Your task to perform on an android device: turn off picture-in-picture Image 0: 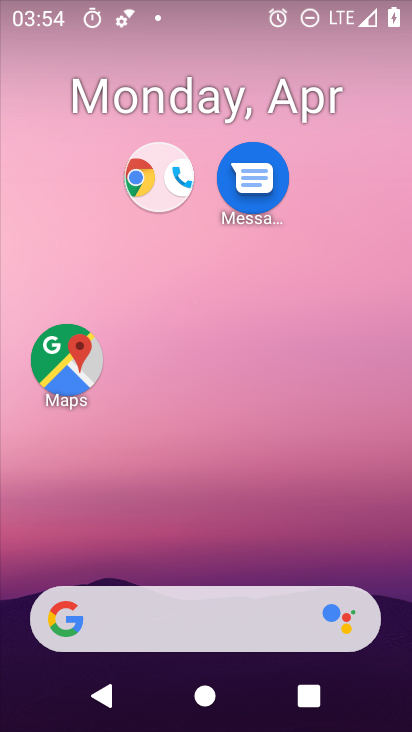
Step 0: drag from (275, 288) to (309, 2)
Your task to perform on an android device: turn off picture-in-picture Image 1: 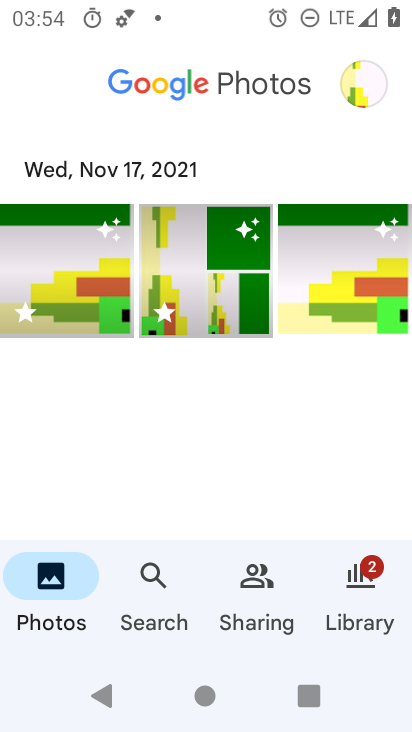
Step 1: press home button
Your task to perform on an android device: turn off picture-in-picture Image 2: 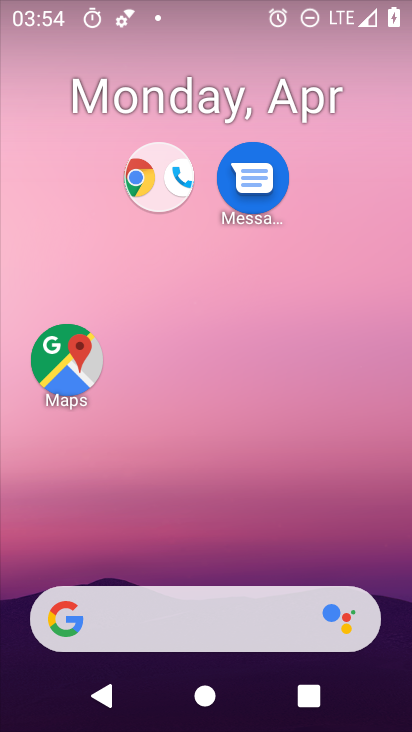
Step 2: drag from (299, 586) to (348, 4)
Your task to perform on an android device: turn off picture-in-picture Image 3: 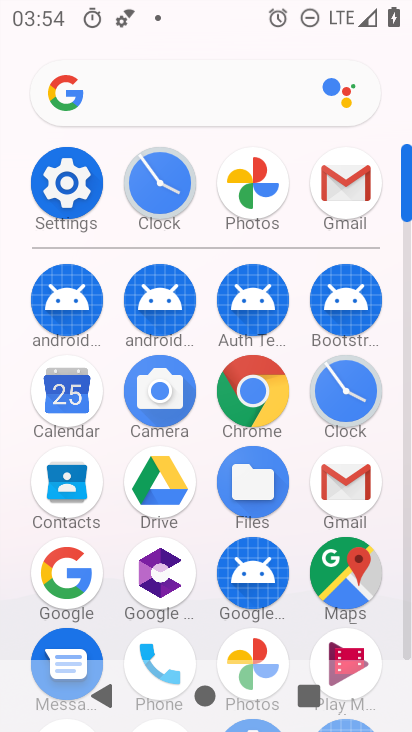
Step 3: drag from (298, 618) to (298, 175)
Your task to perform on an android device: turn off picture-in-picture Image 4: 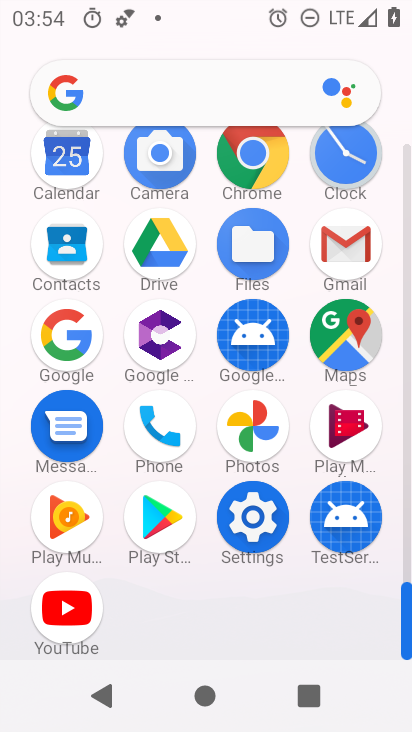
Step 4: click (271, 422)
Your task to perform on an android device: turn off picture-in-picture Image 5: 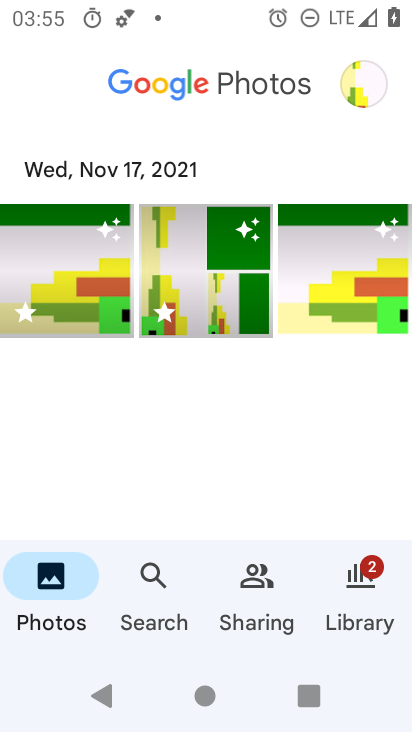
Step 5: press home button
Your task to perform on an android device: turn off picture-in-picture Image 6: 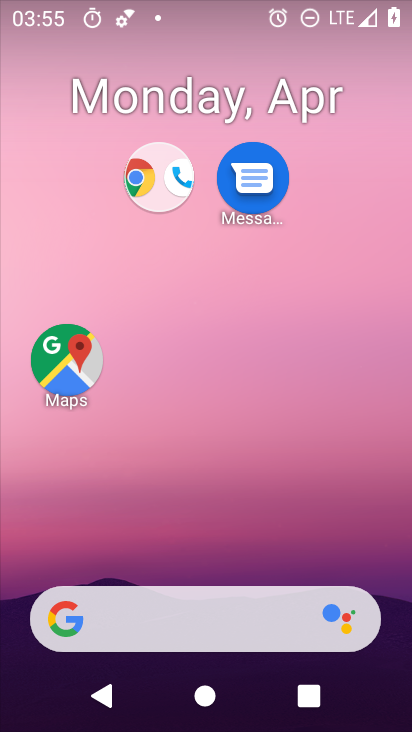
Step 6: drag from (315, 628) to (308, 79)
Your task to perform on an android device: turn off picture-in-picture Image 7: 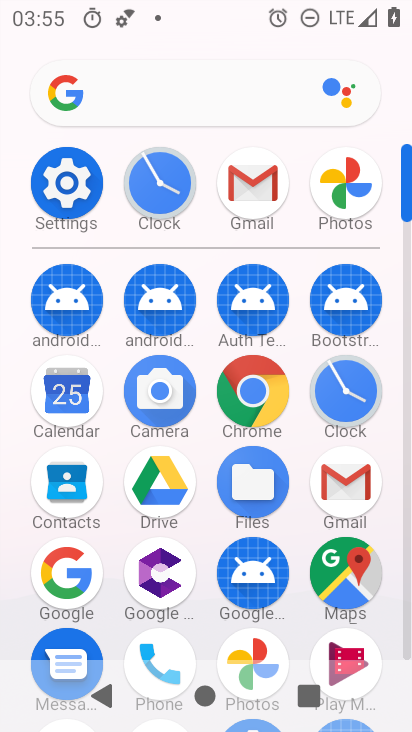
Step 7: drag from (296, 608) to (289, 136)
Your task to perform on an android device: turn off picture-in-picture Image 8: 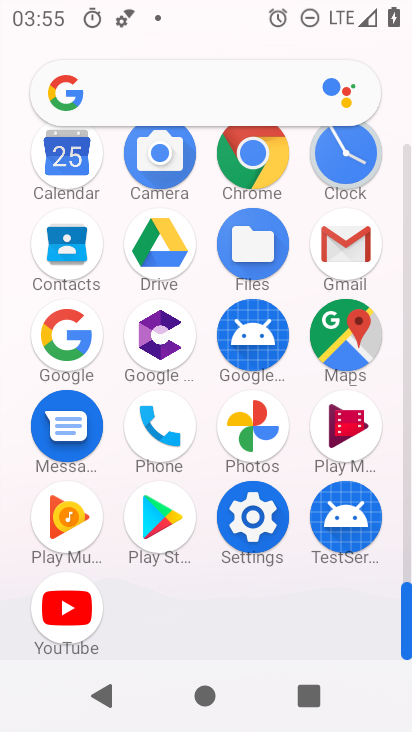
Step 8: click (255, 531)
Your task to perform on an android device: turn off picture-in-picture Image 9: 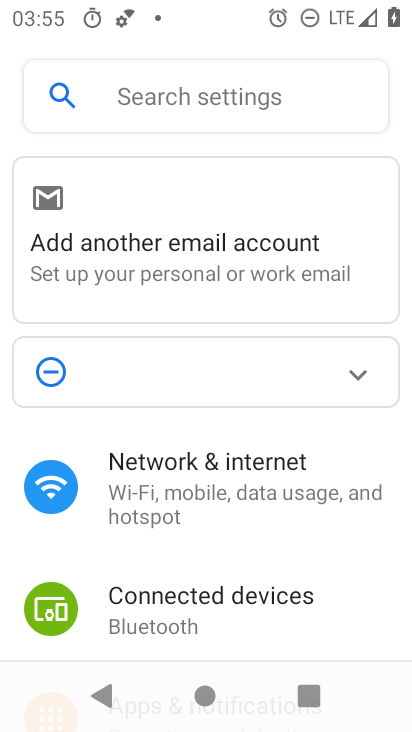
Step 9: drag from (286, 585) to (315, 105)
Your task to perform on an android device: turn off picture-in-picture Image 10: 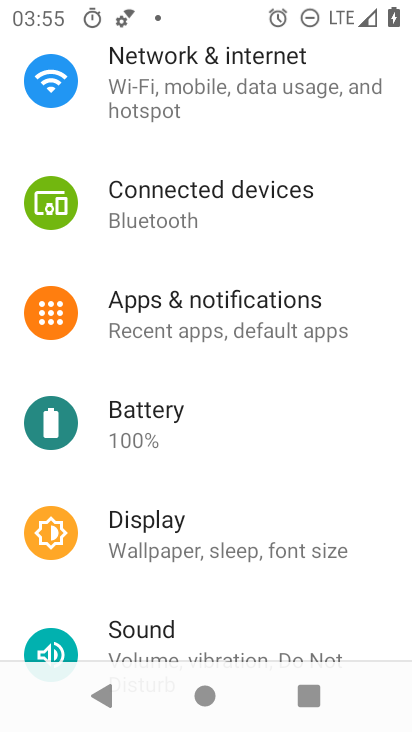
Step 10: drag from (238, 604) to (254, 451)
Your task to perform on an android device: turn off picture-in-picture Image 11: 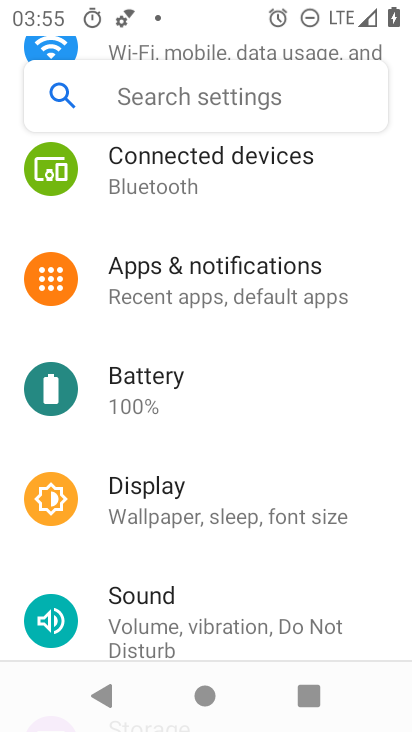
Step 11: click (278, 289)
Your task to perform on an android device: turn off picture-in-picture Image 12: 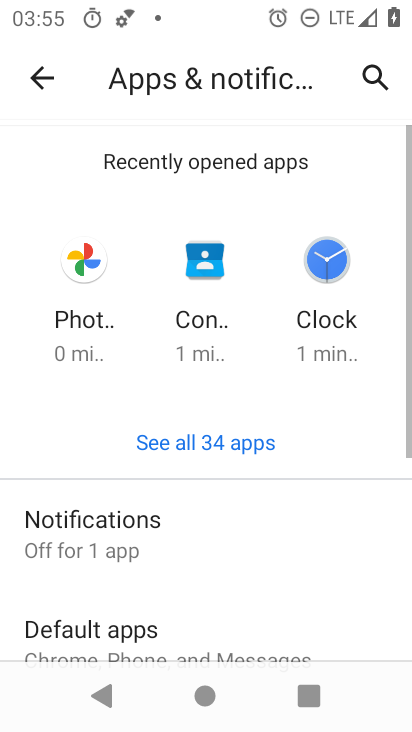
Step 12: drag from (276, 632) to (321, 84)
Your task to perform on an android device: turn off picture-in-picture Image 13: 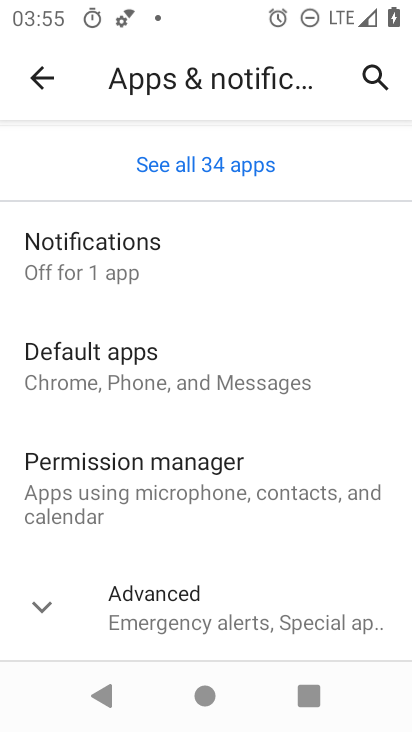
Step 13: click (250, 617)
Your task to perform on an android device: turn off picture-in-picture Image 14: 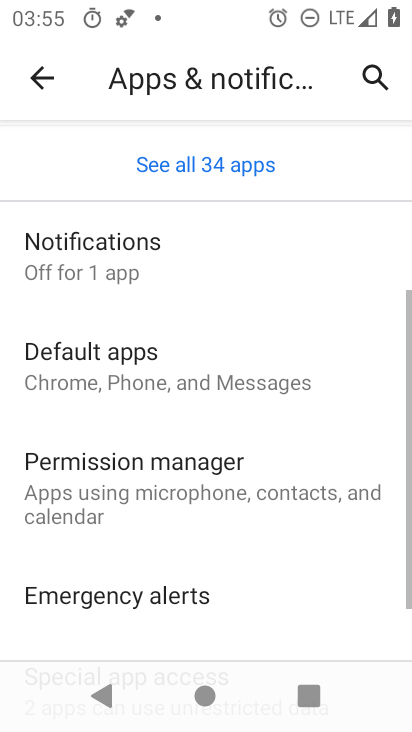
Step 14: drag from (267, 636) to (264, 92)
Your task to perform on an android device: turn off picture-in-picture Image 15: 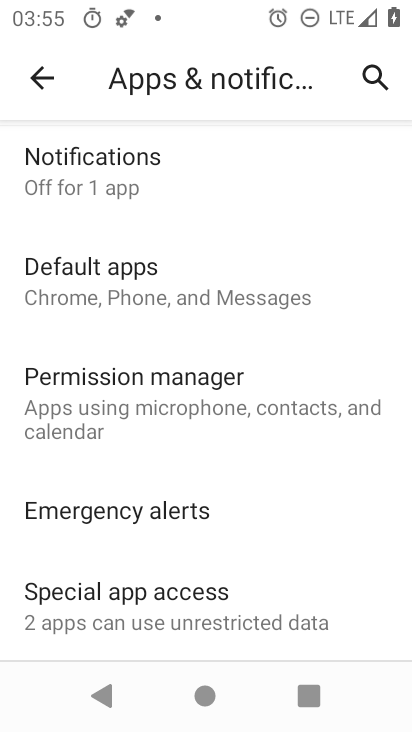
Step 15: click (258, 614)
Your task to perform on an android device: turn off picture-in-picture Image 16: 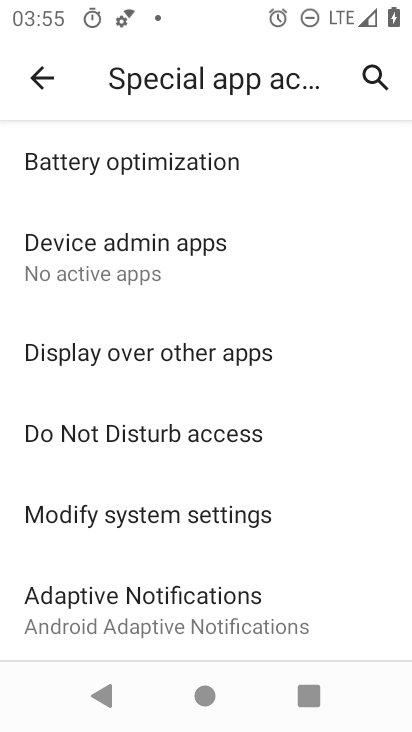
Step 16: drag from (258, 225) to (298, 676)
Your task to perform on an android device: turn off picture-in-picture Image 17: 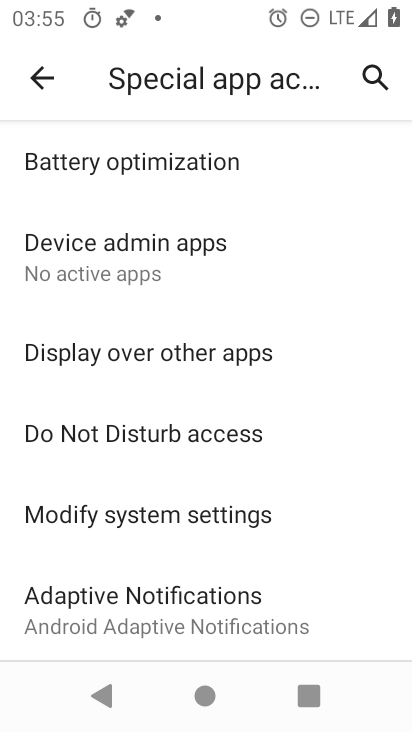
Step 17: drag from (213, 590) to (296, 109)
Your task to perform on an android device: turn off picture-in-picture Image 18: 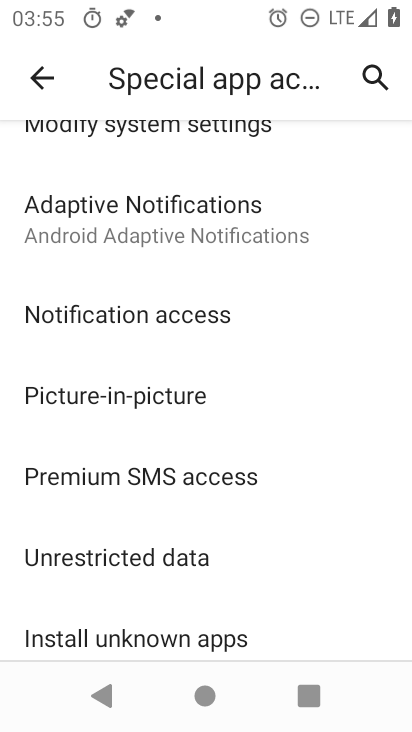
Step 18: click (171, 406)
Your task to perform on an android device: turn off picture-in-picture Image 19: 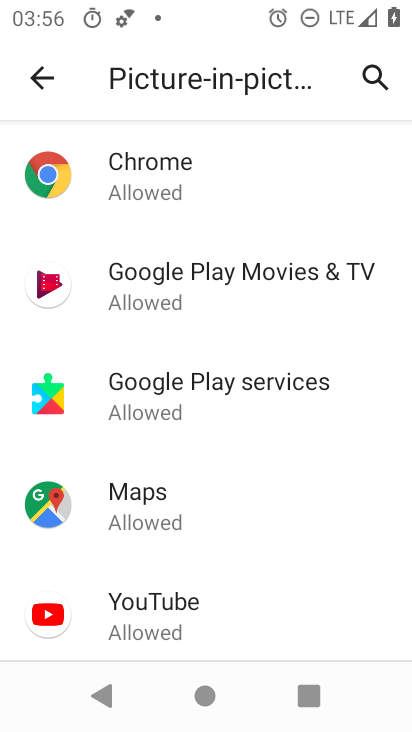
Step 19: click (232, 173)
Your task to perform on an android device: turn off picture-in-picture Image 20: 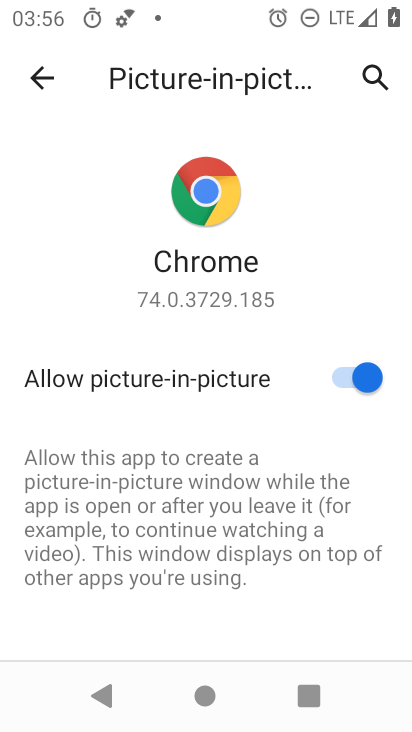
Step 20: click (339, 375)
Your task to perform on an android device: turn off picture-in-picture Image 21: 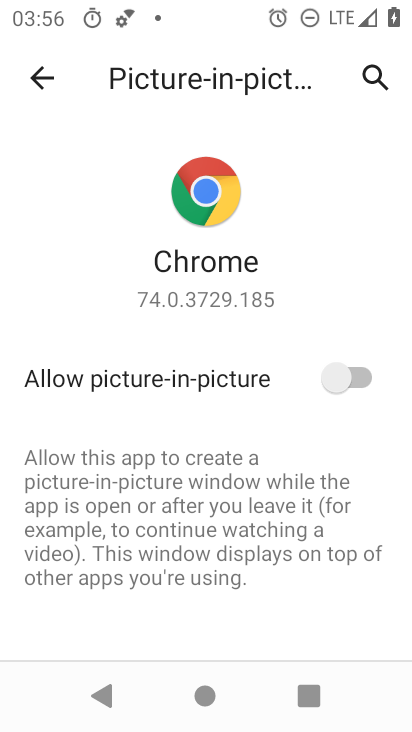
Step 21: click (37, 81)
Your task to perform on an android device: turn off picture-in-picture Image 22: 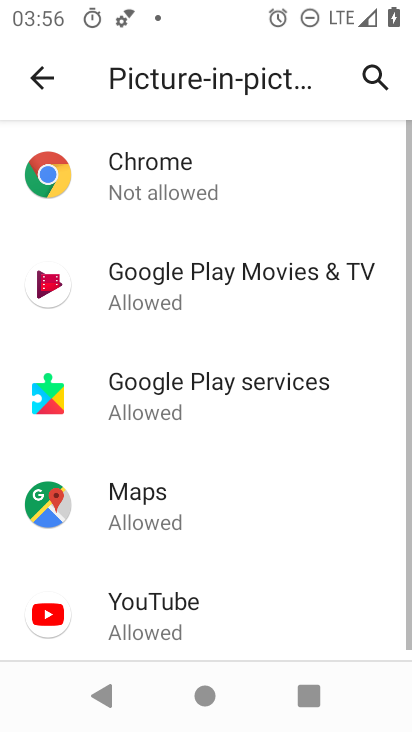
Step 22: click (213, 297)
Your task to perform on an android device: turn off picture-in-picture Image 23: 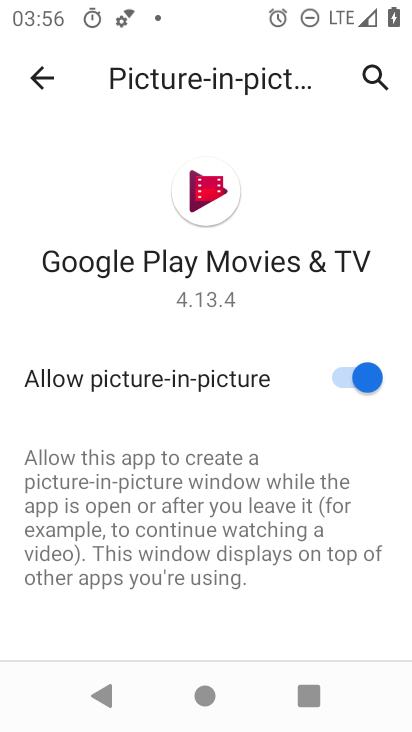
Step 23: click (345, 373)
Your task to perform on an android device: turn off picture-in-picture Image 24: 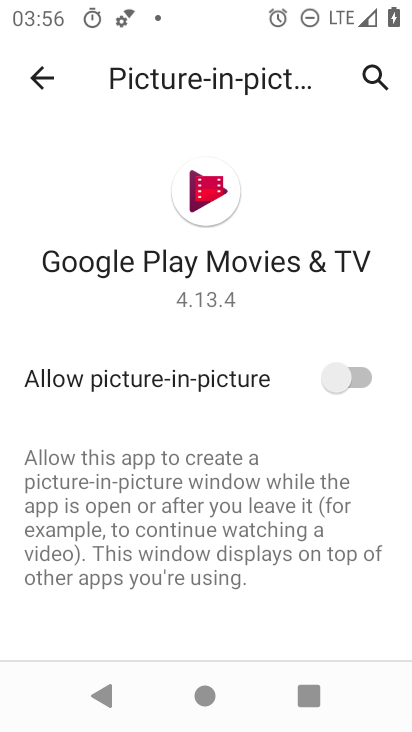
Step 24: click (37, 76)
Your task to perform on an android device: turn off picture-in-picture Image 25: 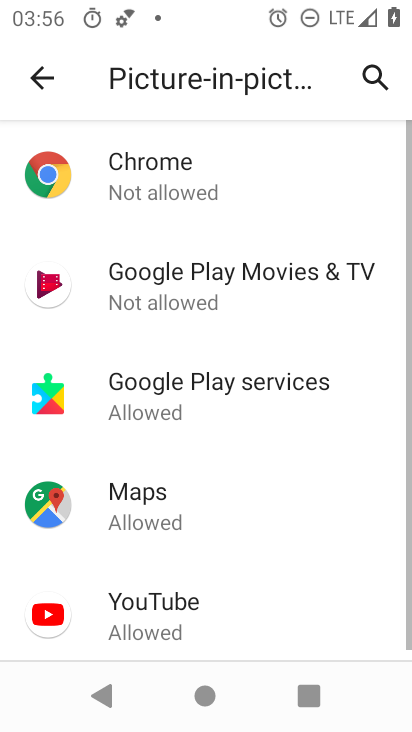
Step 25: click (216, 403)
Your task to perform on an android device: turn off picture-in-picture Image 26: 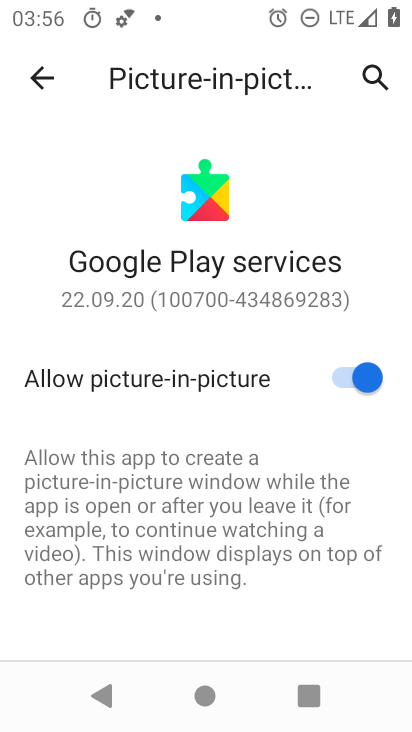
Step 26: click (345, 379)
Your task to perform on an android device: turn off picture-in-picture Image 27: 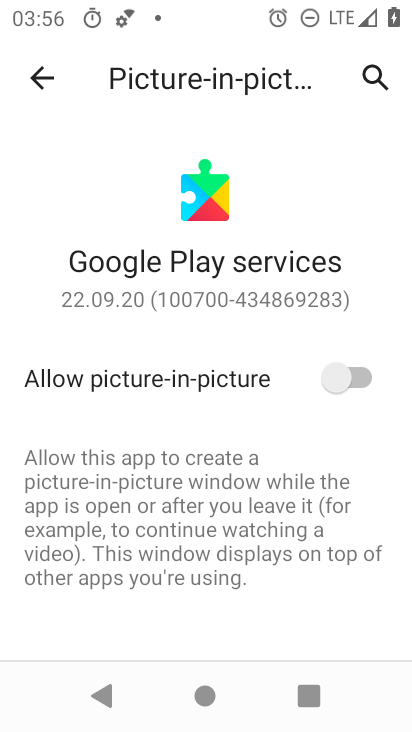
Step 27: click (48, 83)
Your task to perform on an android device: turn off picture-in-picture Image 28: 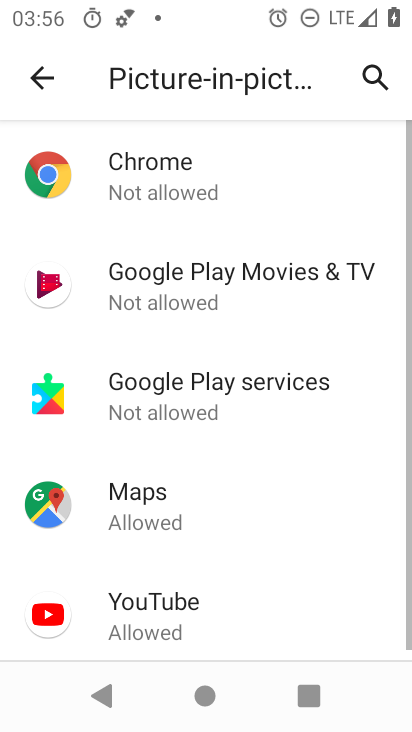
Step 28: click (226, 525)
Your task to perform on an android device: turn off picture-in-picture Image 29: 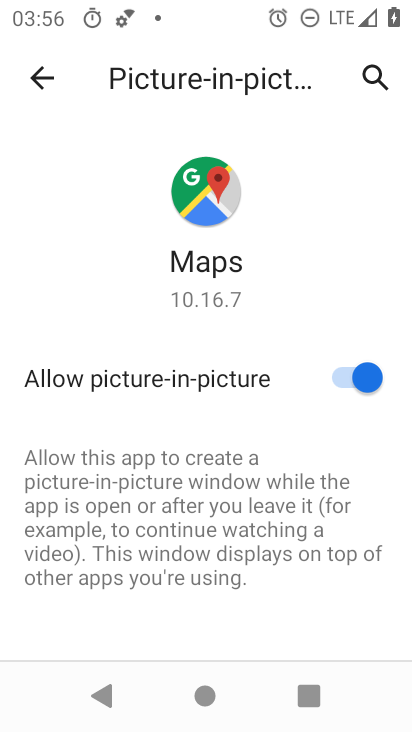
Step 29: click (347, 374)
Your task to perform on an android device: turn off picture-in-picture Image 30: 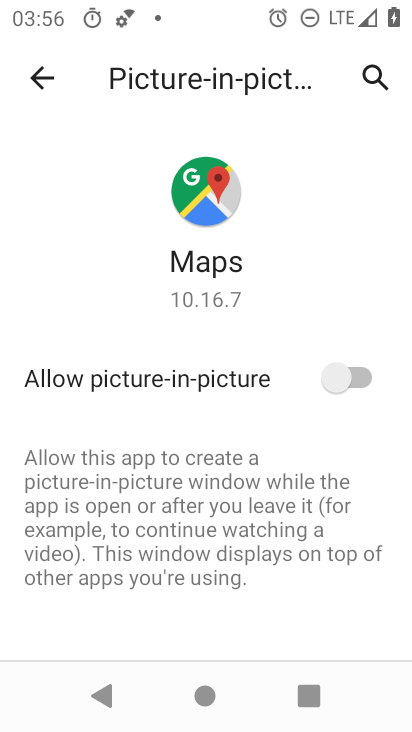
Step 30: click (47, 74)
Your task to perform on an android device: turn off picture-in-picture Image 31: 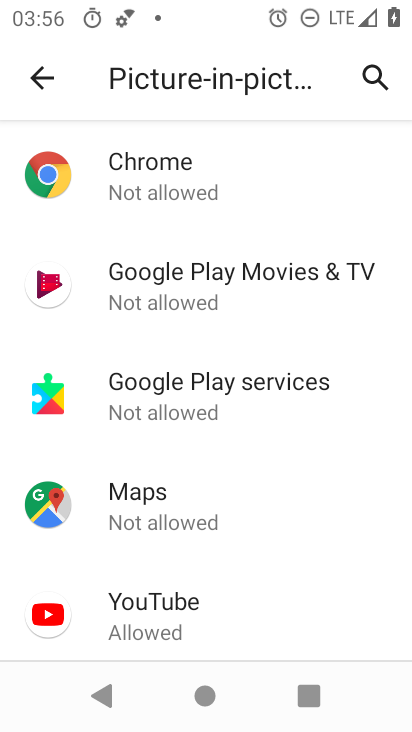
Step 31: click (199, 615)
Your task to perform on an android device: turn off picture-in-picture Image 32: 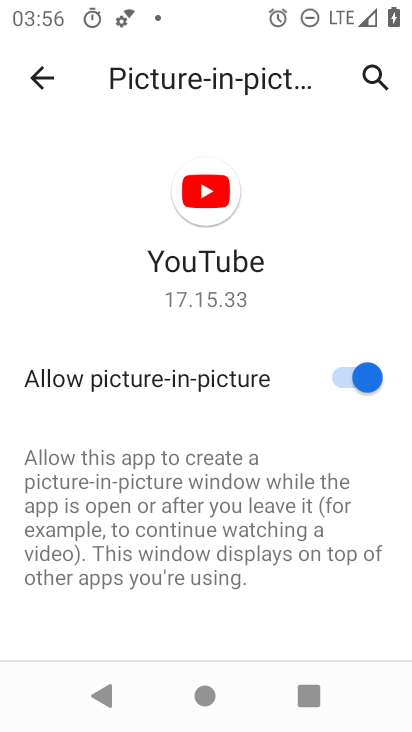
Step 32: click (345, 377)
Your task to perform on an android device: turn off picture-in-picture Image 33: 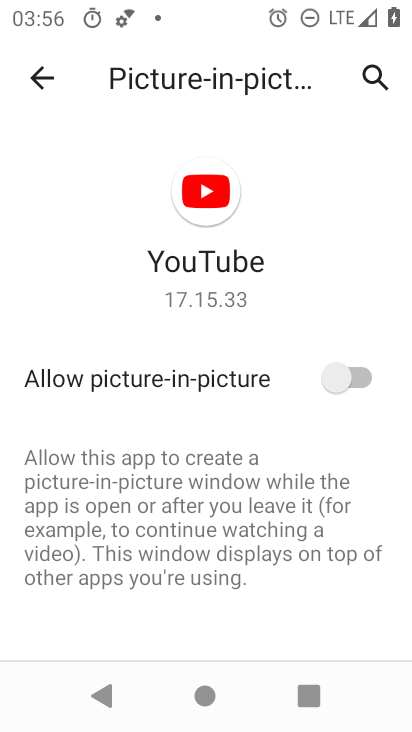
Step 33: click (42, 83)
Your task to perform on an android device: turn off picture-in-picture Image 34: 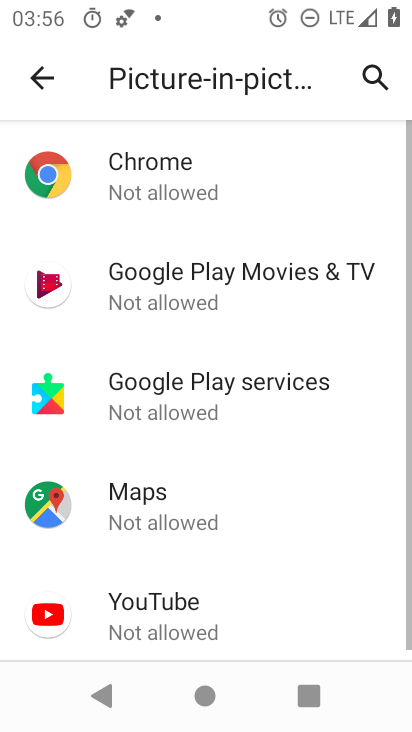
Step 34: task complete